Your task to perform on an android device: turn pop-ups on in chrome Image 0: 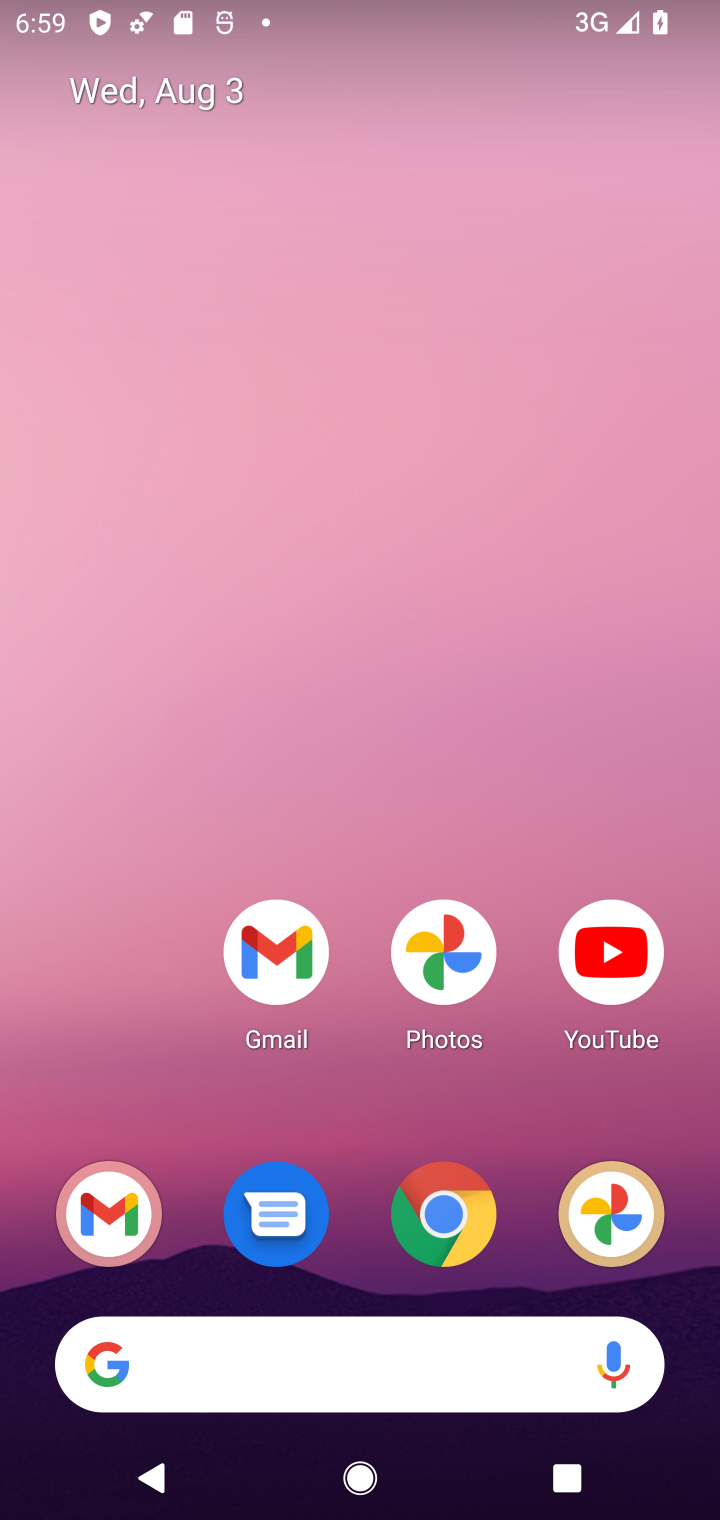
Step 0: drag from (207, 680) to (347, 109)
Your task to perform on an android device: turn pop-ups on in chrome Image 1: 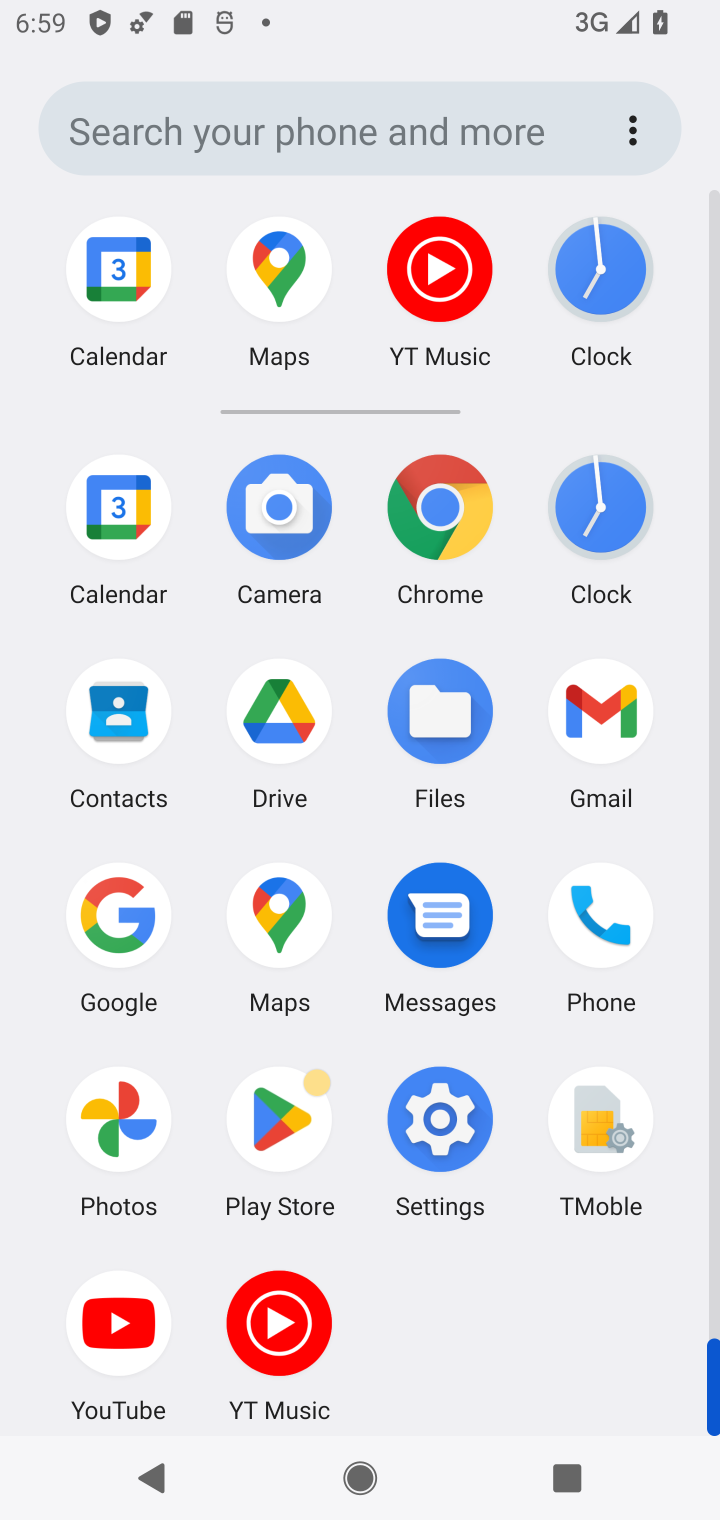
Step 1: click (472, 501)
Your task to perform on an android device: turn pop-ups on in chrome Image 2: 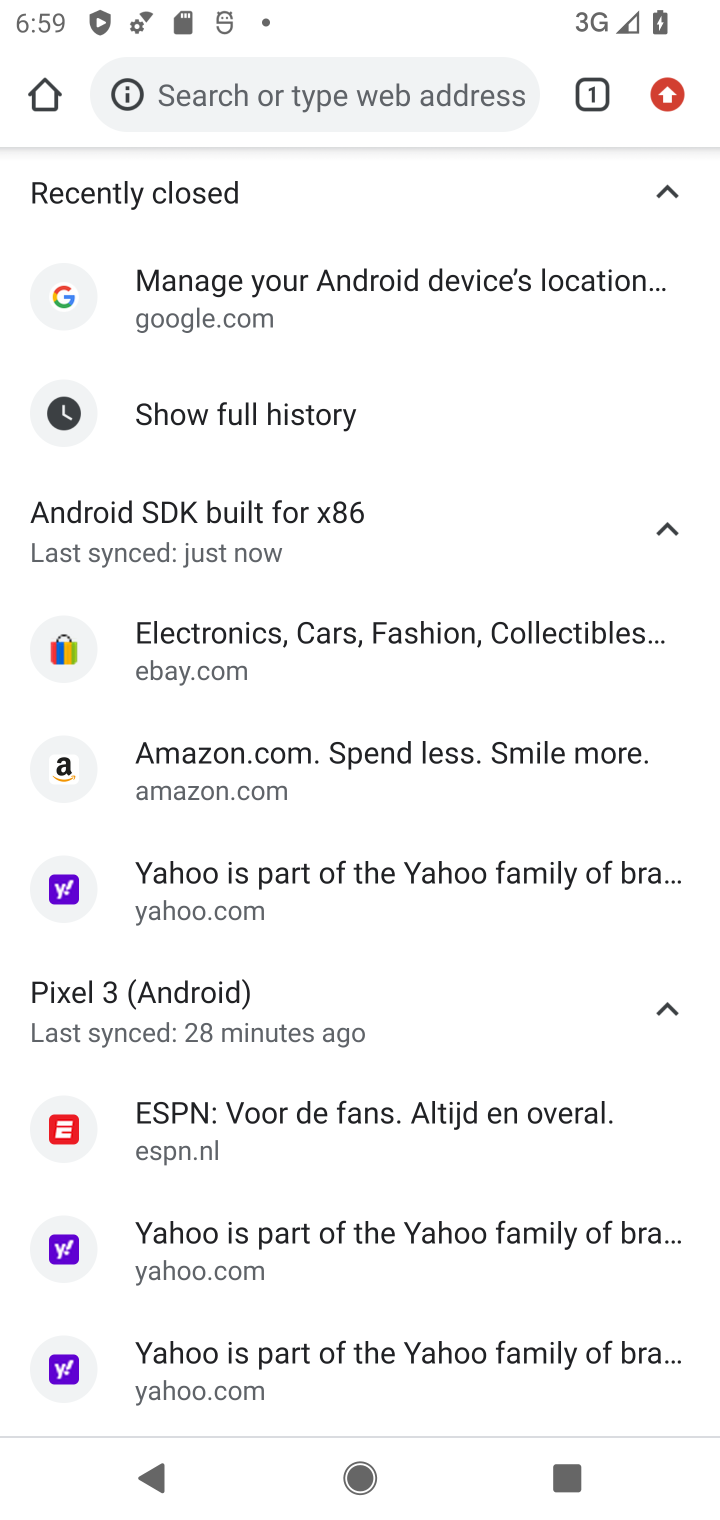
Step 2: drag from (533, 556) to (511, 1372)
Your task to perform on an android device: turn pop-ups on in chrome Image 3: 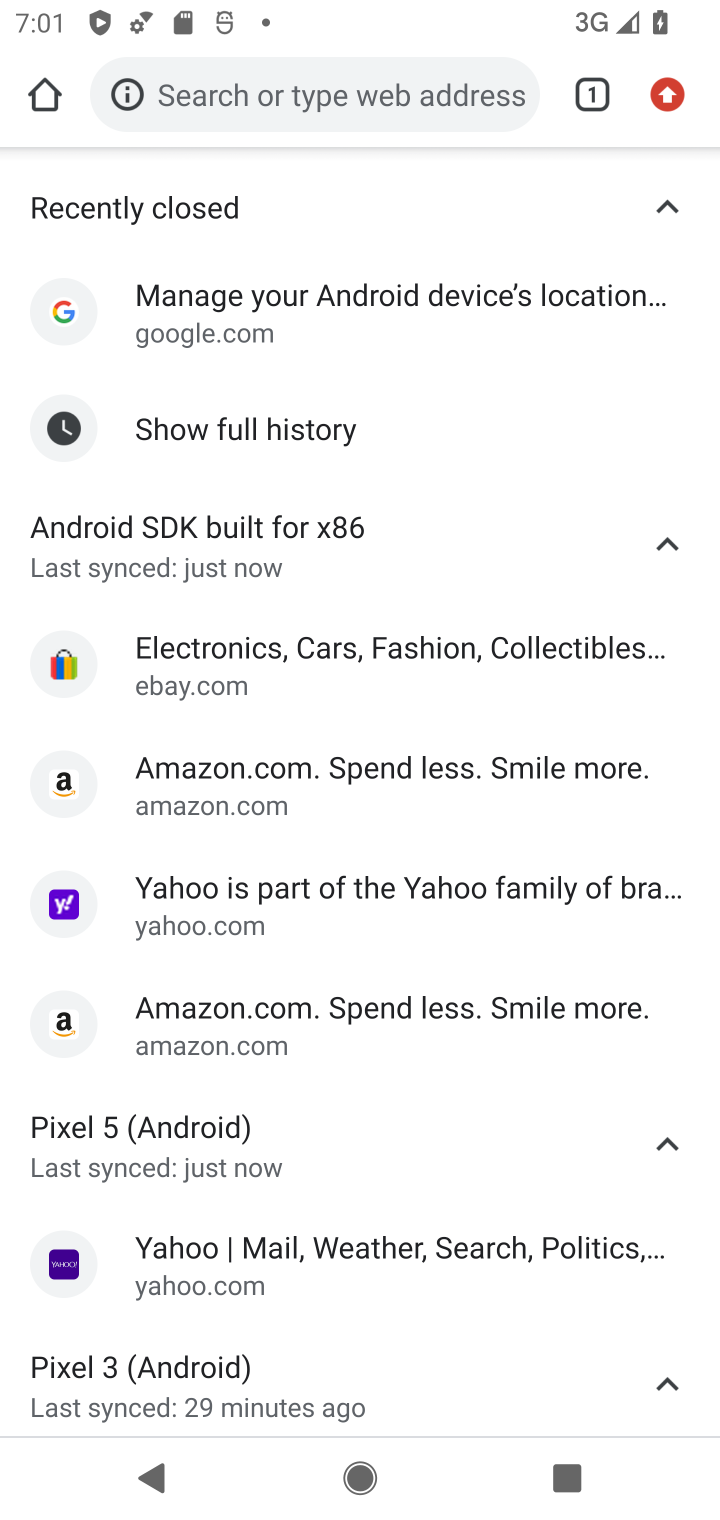
Step 3: drag from (672, 116) to (302, 1018)
Your task to perform on an android device: turn pop-ups on in chrome Image 4: 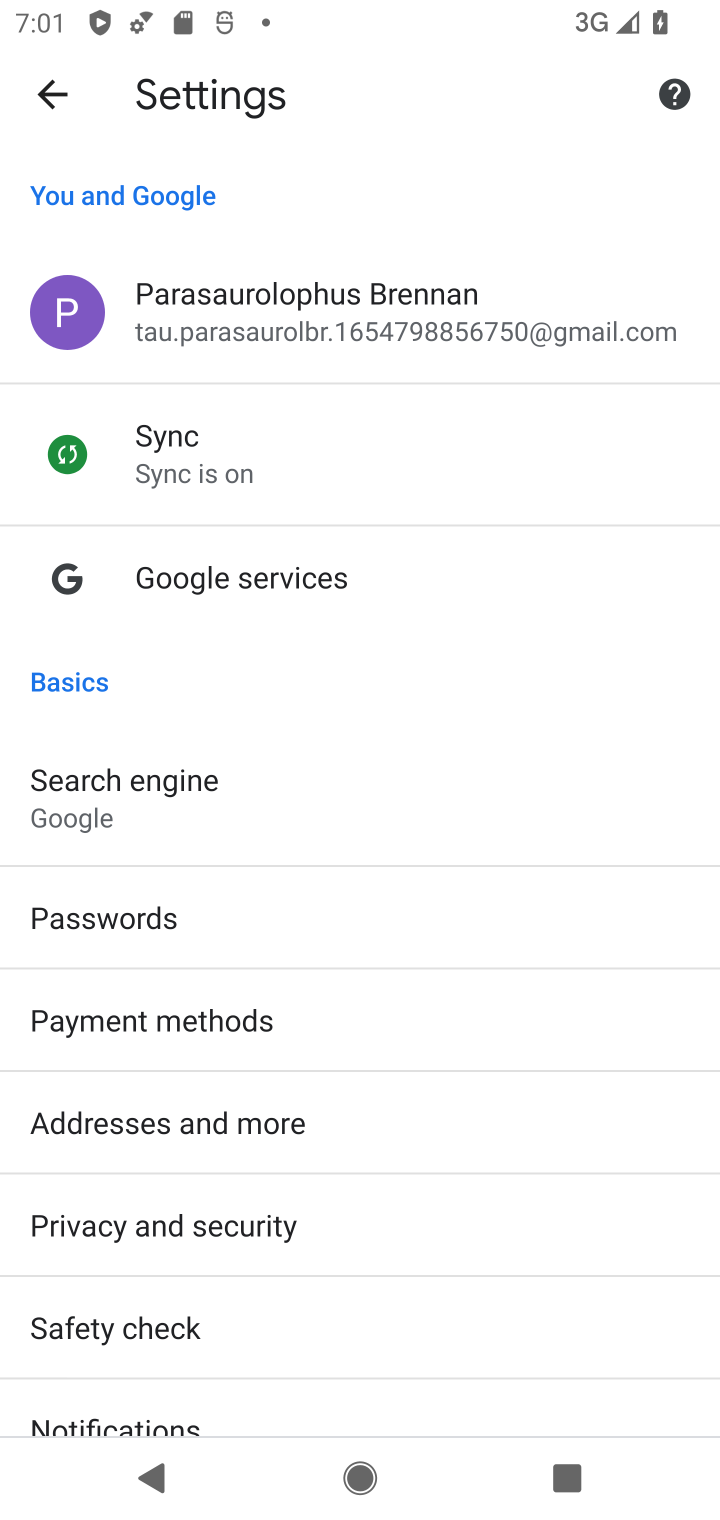
Step 4: drag from (261, 1262) to (274, 291)
Your task to perform on an android device: turn pop-ups on in chrome Image 5: 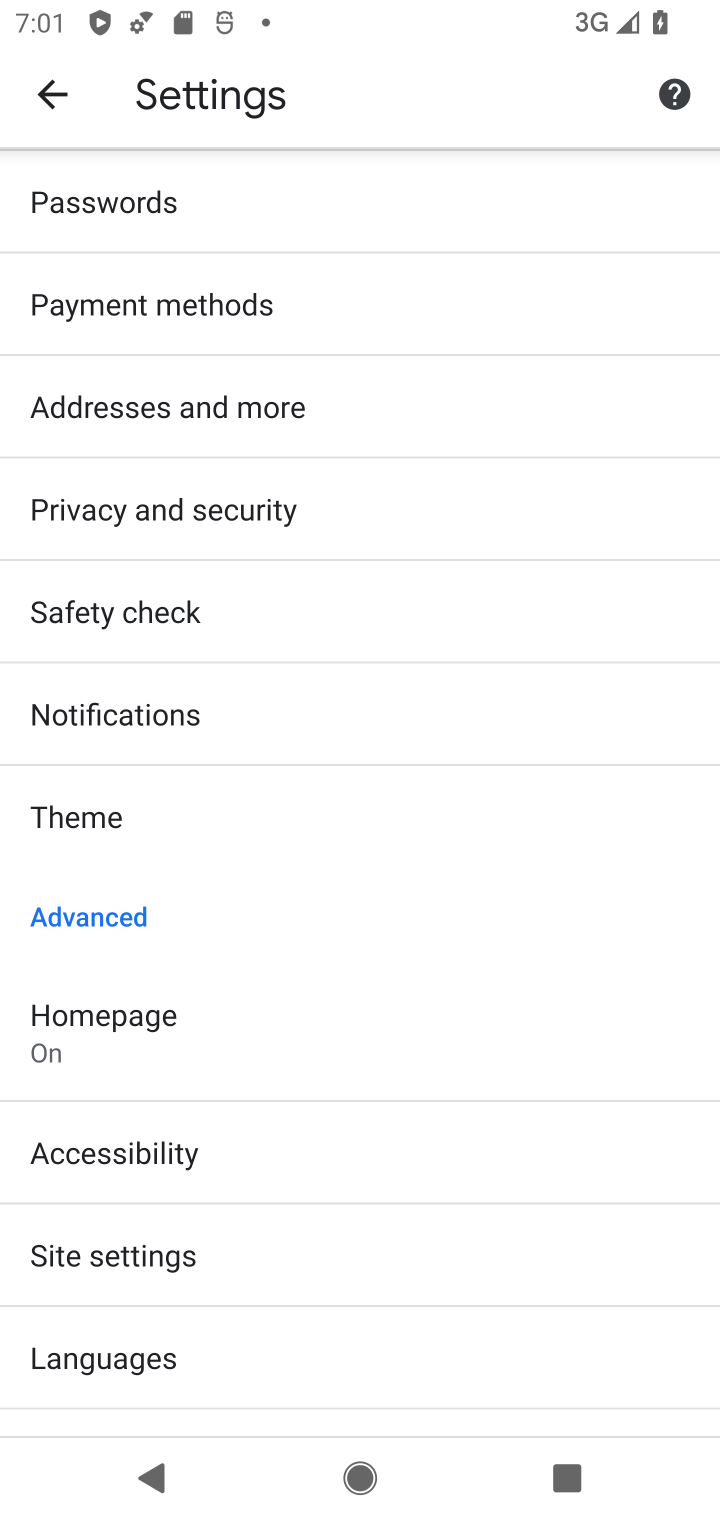
Step 5: click (173, 1279)
Your task to perform on an android device: turn pop-ups on in chrome Image 6: 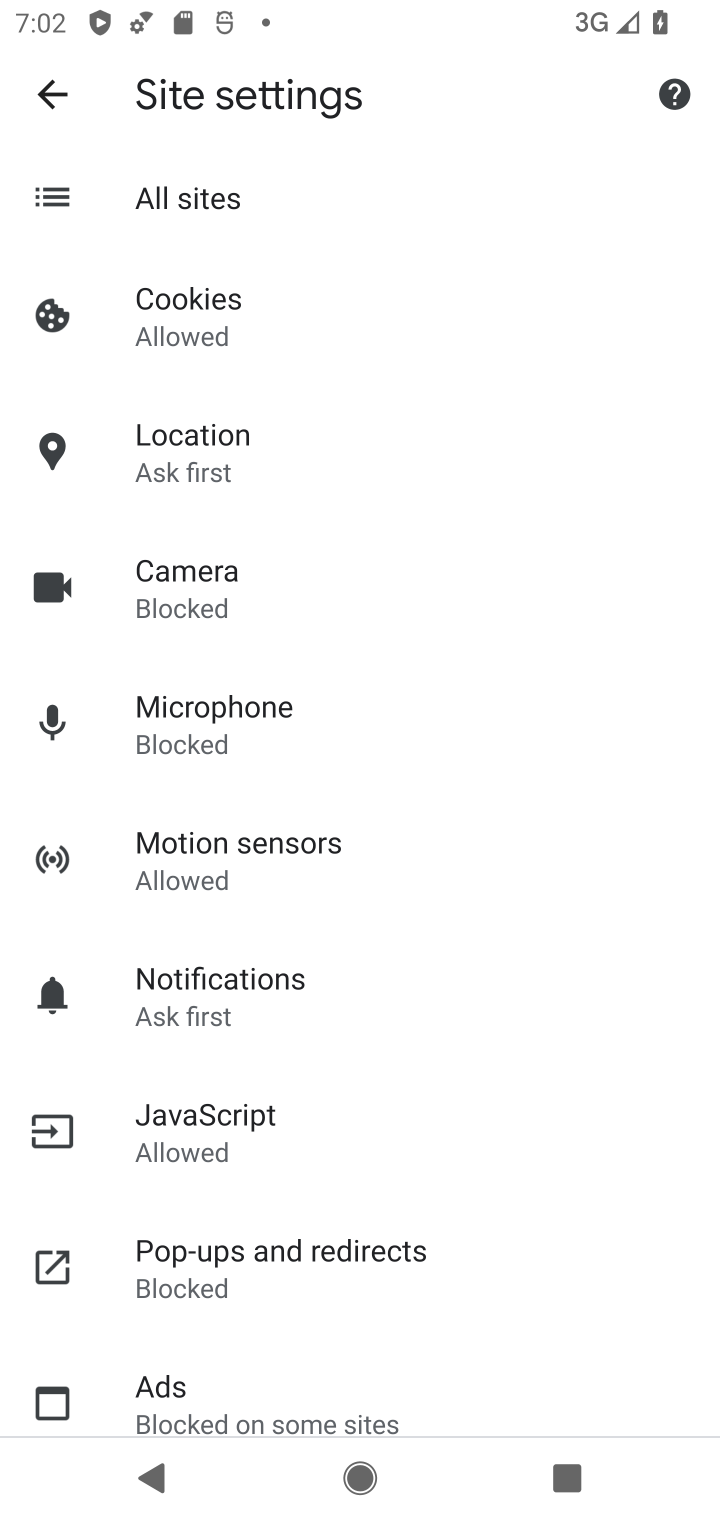
Step 6: click (257, 1285)
Your task to perform on an android device: turn pop-ups on in chrome Image 7: 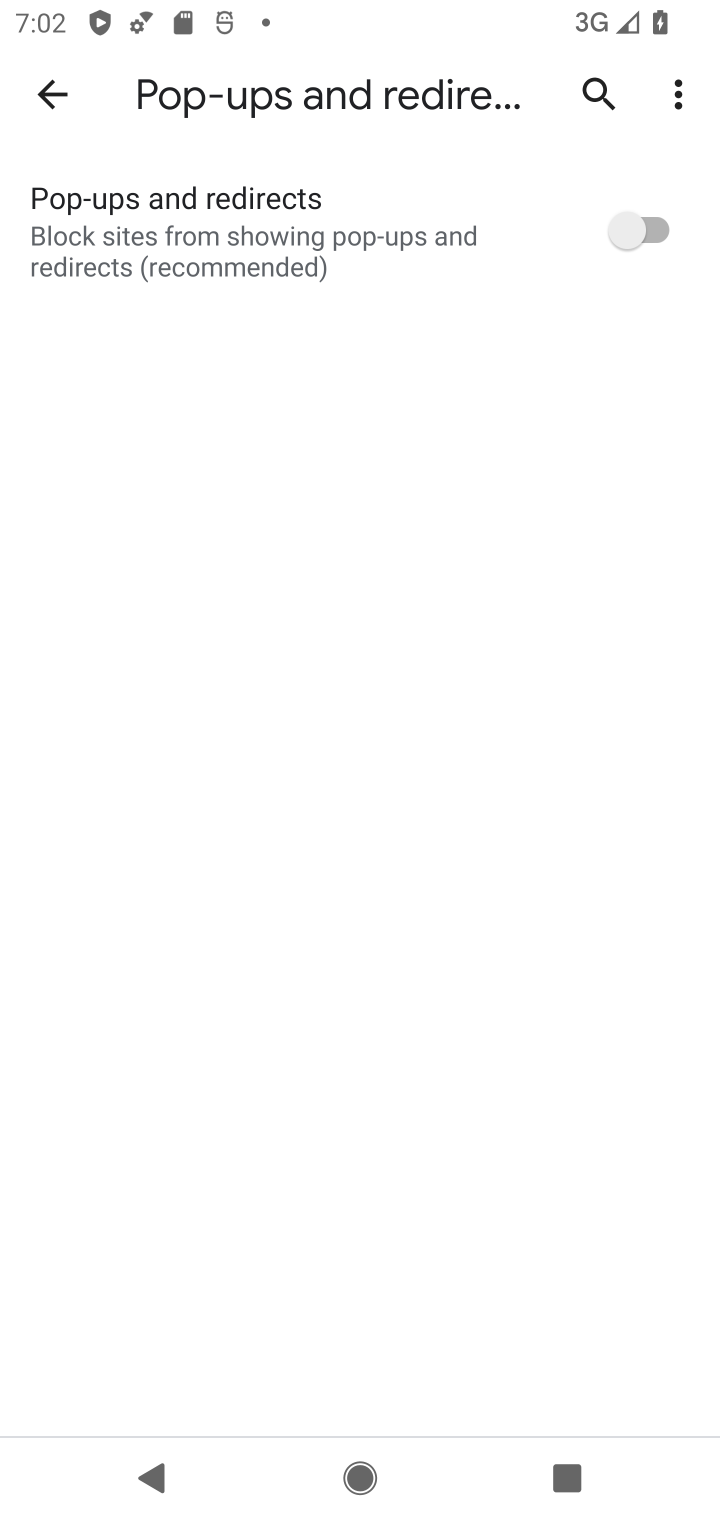
Step 7: click (624, 246)
Your task to perform on an android device: turn pop-ups on in chrome Image 8: 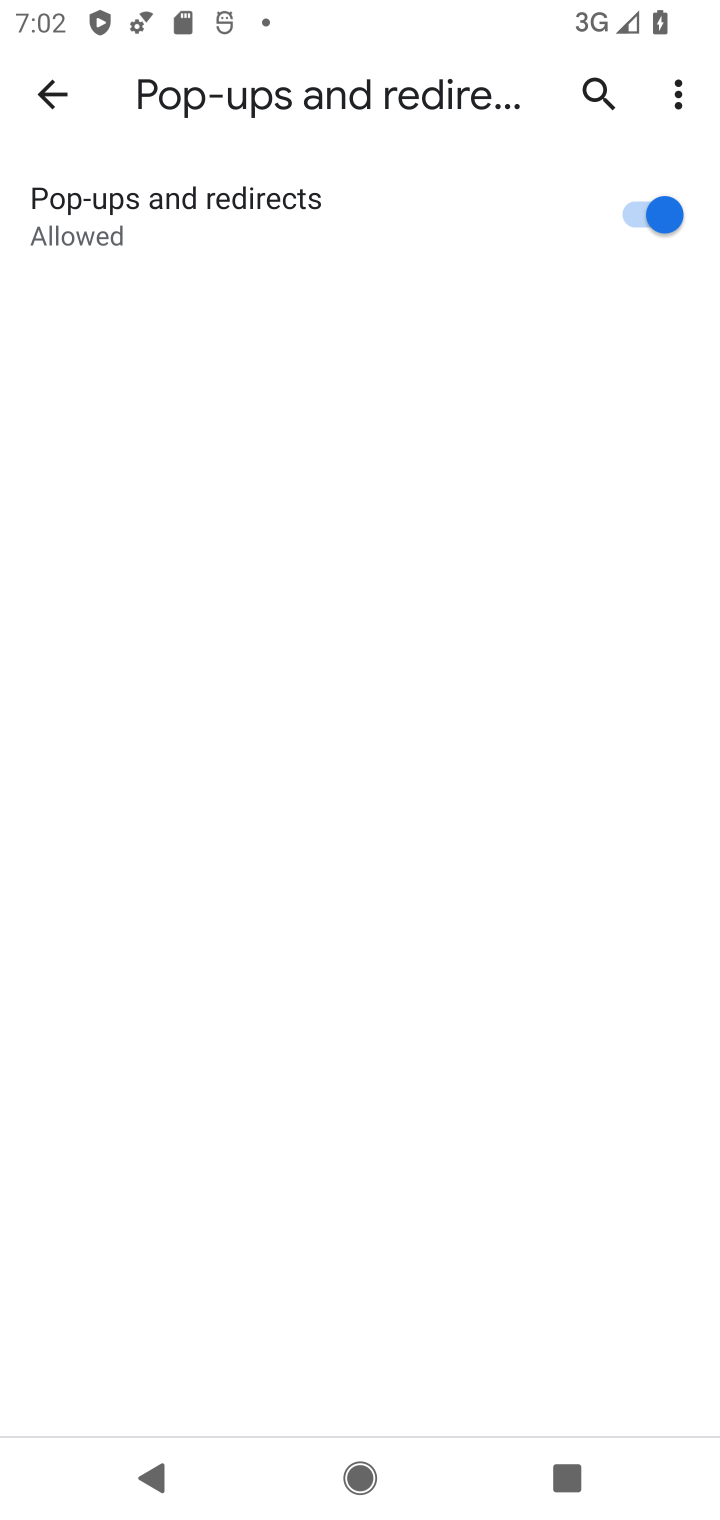
Step 8: task complete